Your task to perform on an android device: Go to Wikipedia Image 0: 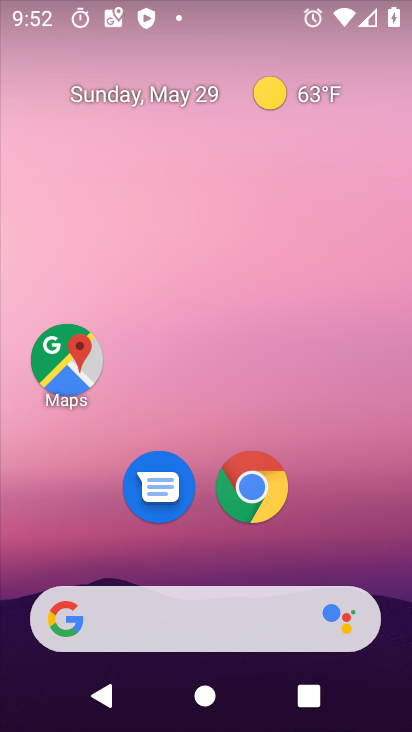
Step 0: drag from (203, 598) to (220, 94)
Your task to perform on an android device: Go to Wikipedia Image 1: 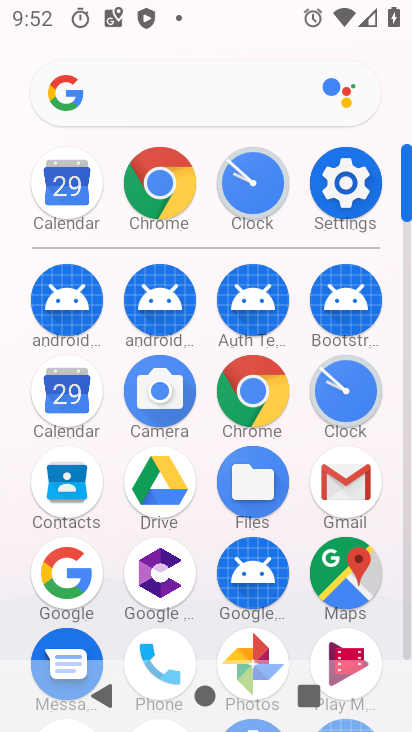
Step 1: click (249, 409)
Your task to perform on an android device: Go to Wikipedia Image 2: 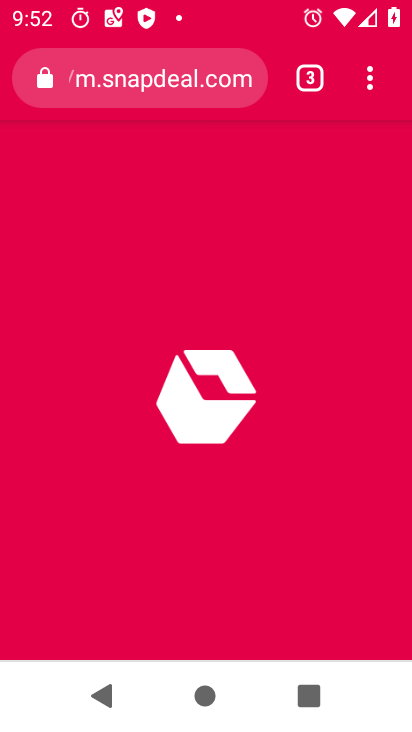
Step 2: click (169, 82)
Your task to perform on an android device: Go to Wikipedia Image 3: 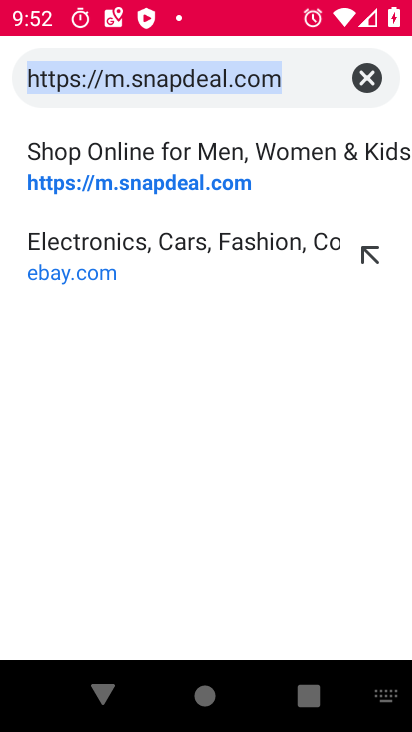
Step 3: type "wiki"
Your task to perform on an android device: Go to Wikipedia Image 4: 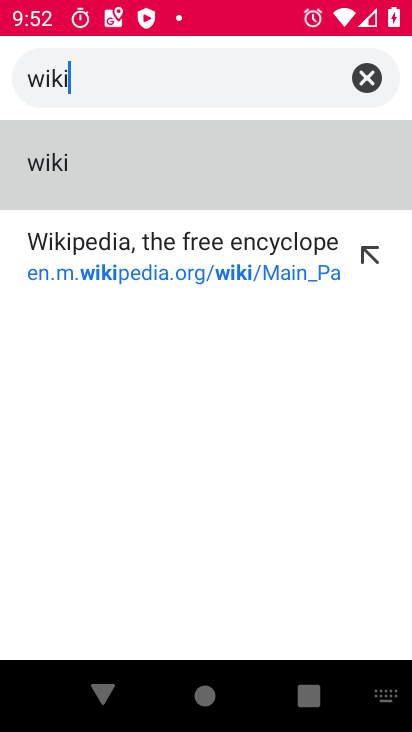
Step 4: click (261, 268)
Your task to perform on an android device: Go to Wikipedia Image 5: 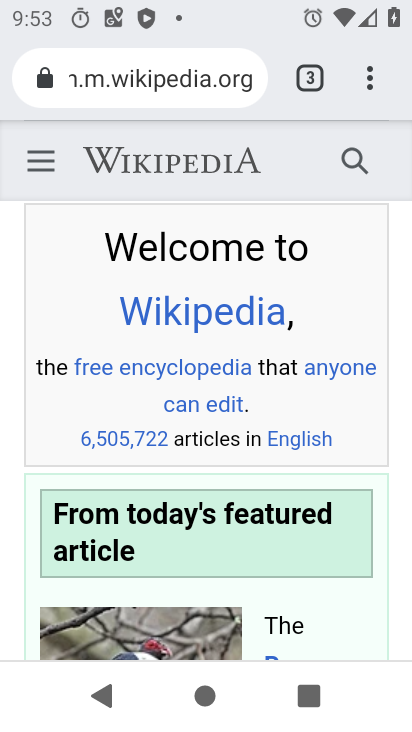
Step 5: task complete